Your task to perform on an android device: turn on location history Image 0: 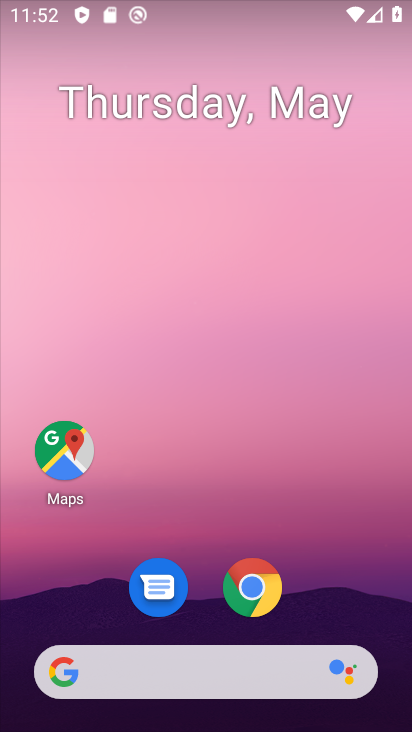
Step 0: drag from (178, 625) to (240, 57)
Your task to perform on an android device: turn on location history Image 1: 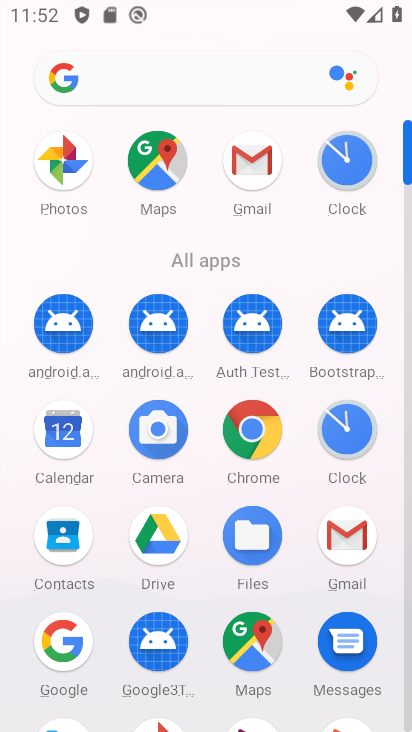
Step 1: drag from (217, 560) to (294, 143)
Your task to perform on an android device: turn on location history Image 2: 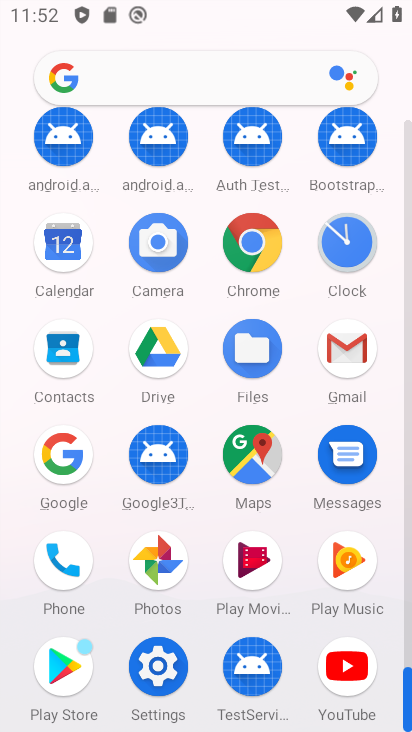
Step 2: click (157, 672)
Your task to perform on an android device: turn on location history Image 3: 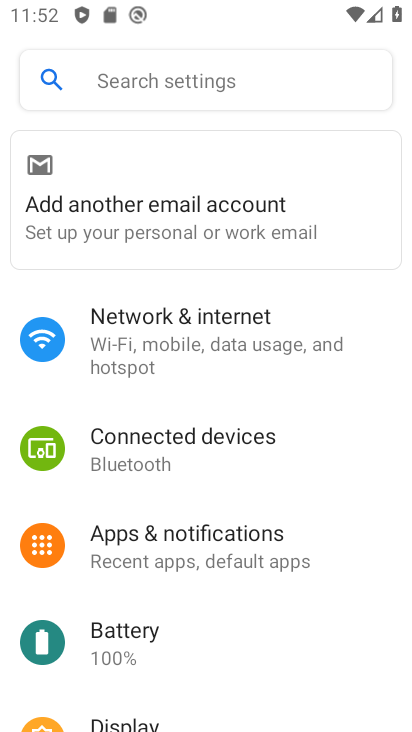
Step 3: drag from (166, 650) to (236, 178)
Your task to perform on an android device: turn on location history Image 4: 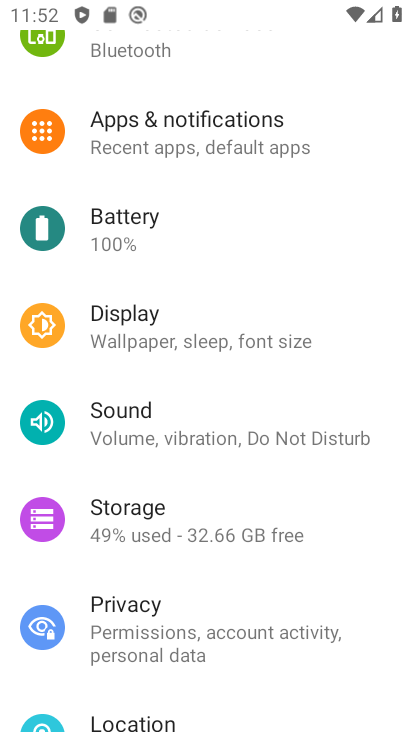
Step 4: drag from (200, 572) to (239, 256)
Your task to perform on an android device: turn on location history Image 5: 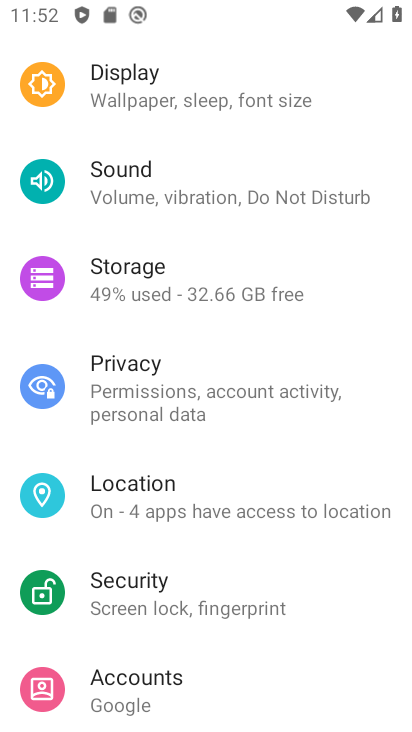
Step 5: click (211, 509)
Your task to perform on an android device: turn on location history Image 6: 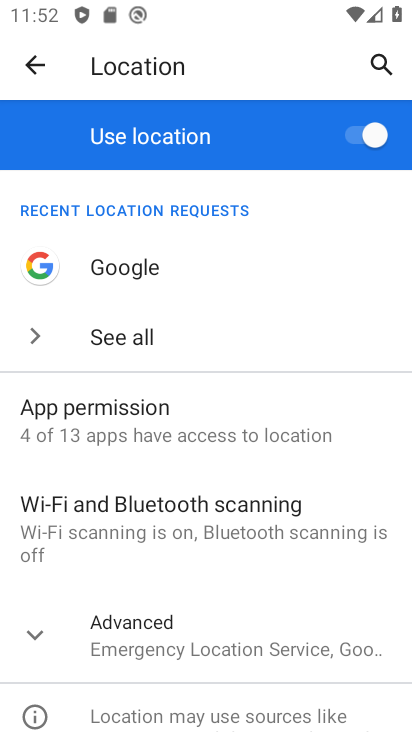
Step 6: click (134, 622)
Your task to perform on an android device: turn on location history Image 7: 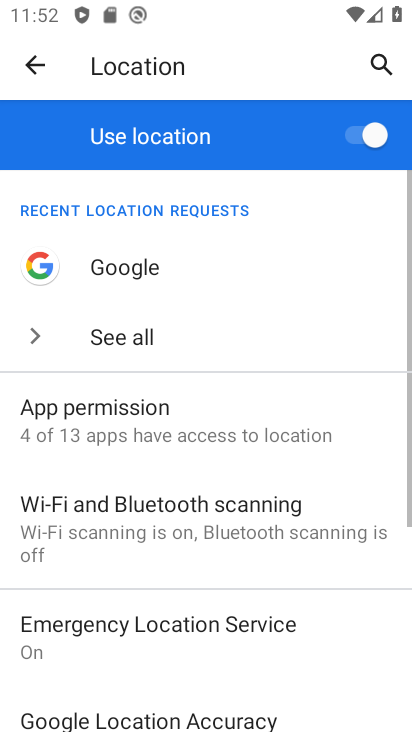
Step 7: drag from (159, 655) to (252, 329)
Your task to perform on an android device: turn on location history Image 8: 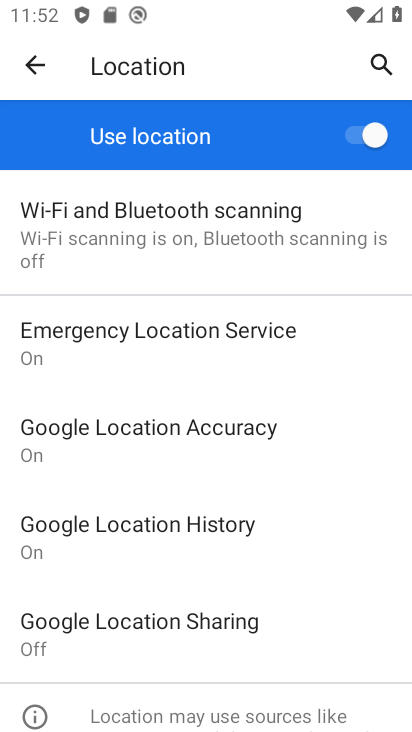
Step 8: click (108, 546)
Your task to perform on an android device: turn on location history Image 9: 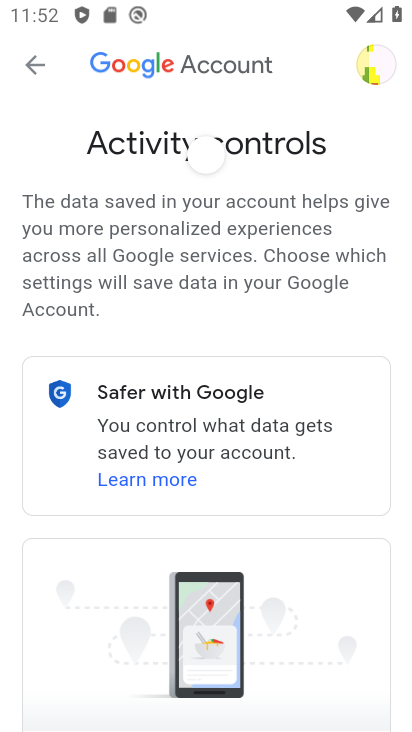
Step 9: task complete